Your task to perform on an android device: empty trash in google photos Image 0: 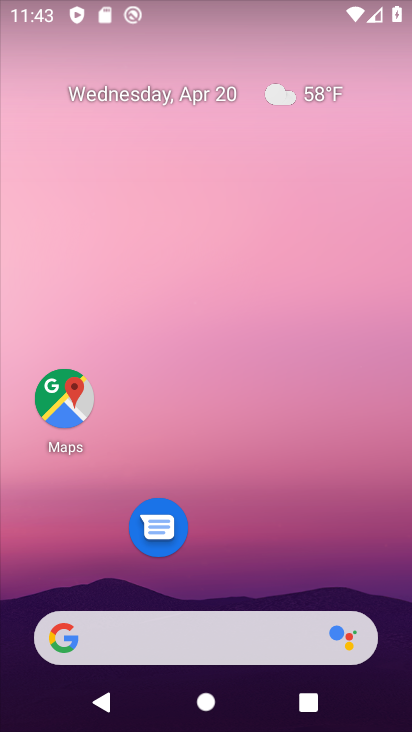
Step 0: drag from (227, 697) to (232, 86)
Your task to perform on an android device: empty trash in google photos Image 1: 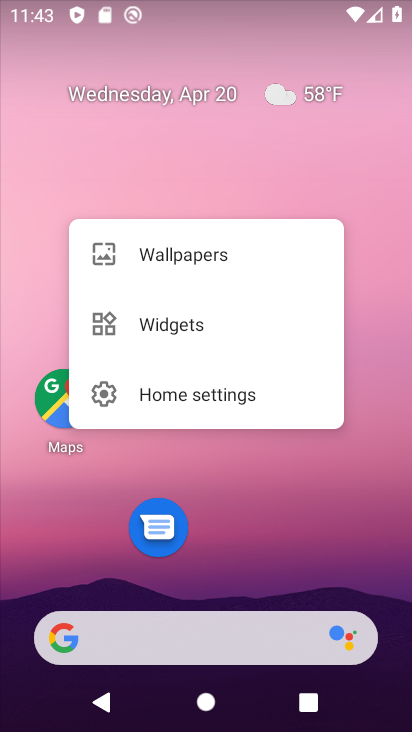
Step 1: click (221, 159)
Your task to perform on an android device: empty trash in google photos Image 2: 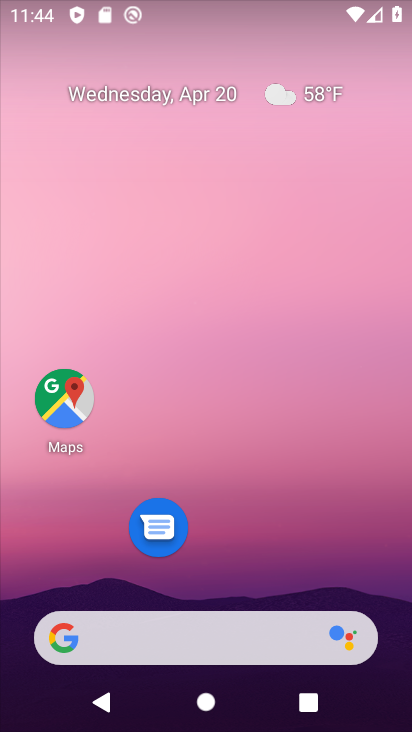
Step 2: drag from (227, 723) to (227, 154)
Your task to perform on an android device: empty trash in google photos Image 3: 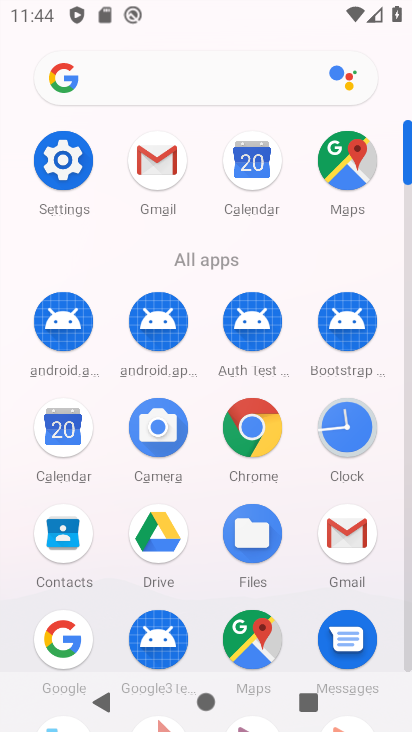
Step 3: drag from (202, 626) to (203, 254)
Your task to perform on an android device: empty trash in google photos Image 4: 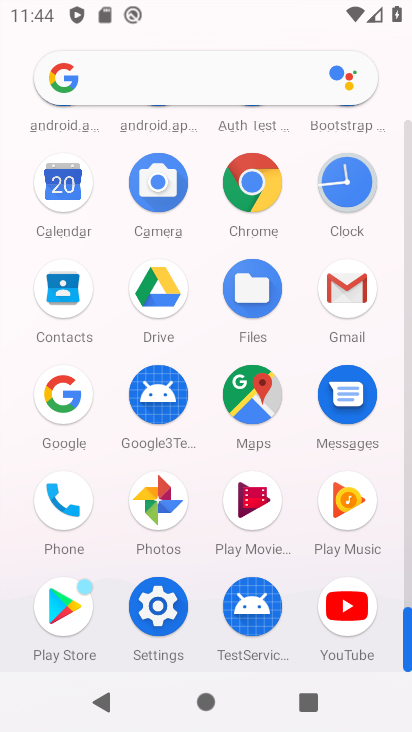
Step 4: click (156, 499)
Your task to perform on an android device: empty trash in google photos Image 5: 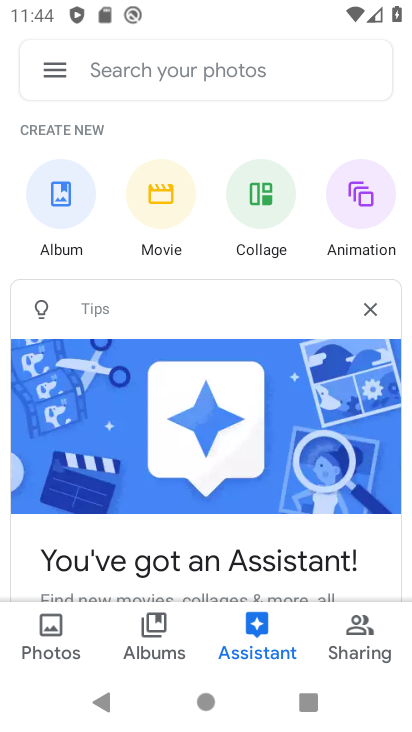
Step 5: click (55, 64)
Your task to perform on an android device: empty trash in google photos Image 6: 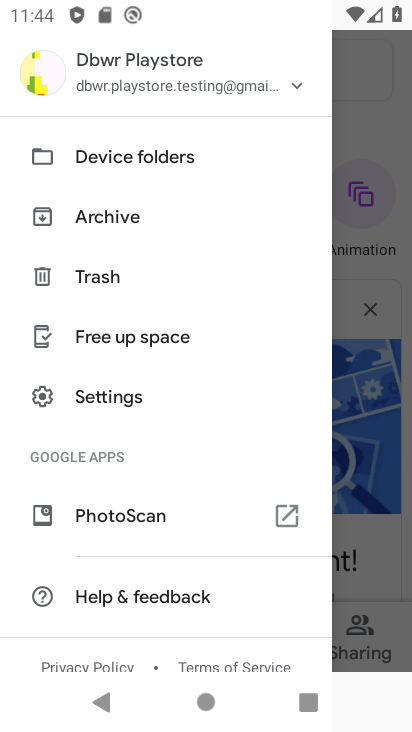
Step 6: click (93, 269)
Your task to perform on an android device: empty trash in google photos Image 7: 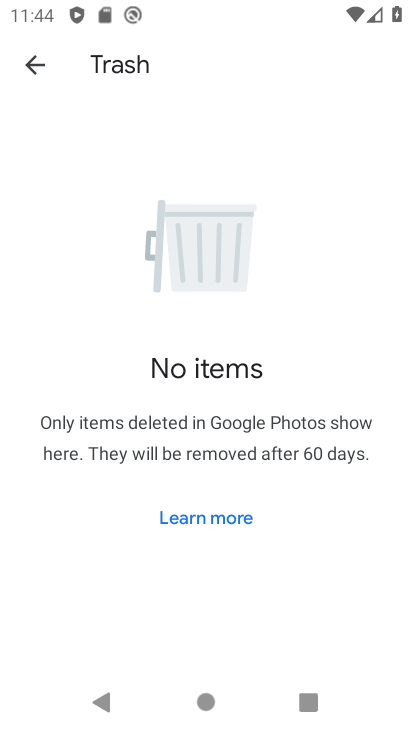
Step 7: task complete